Your task to perform on an android device: change notification settings in the gmail app Image 0: 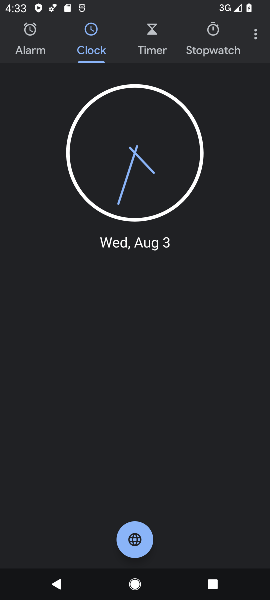
Step 0: press home button
Your task to perform on an android device: change notification settings in the gmail app Image 1: 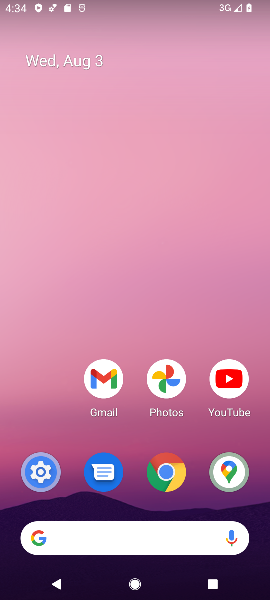
Step 1: drag from (40, 418) to (74, 60)
Your task to perform on an android device: change notification settings in the gmail app Image 2: 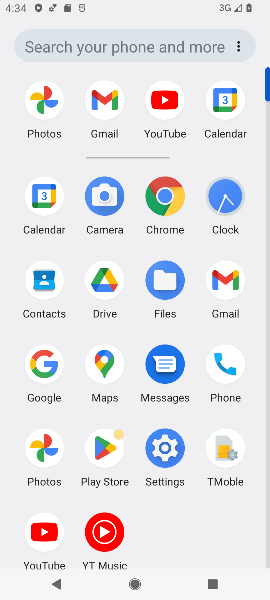
Step 2: click (107, 106)
Your task to perform on an android device: change notification settings in the gmail app Image 3: 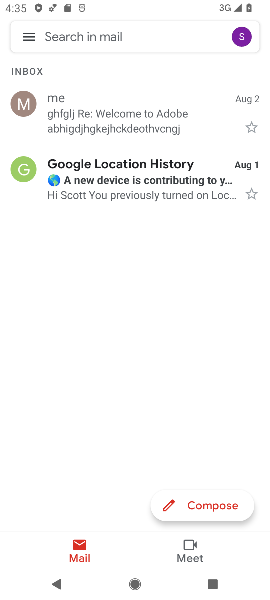
Step 3: click (23, 36)
Your task to perform on an android device: change notification settings in the gmail app Image 4: 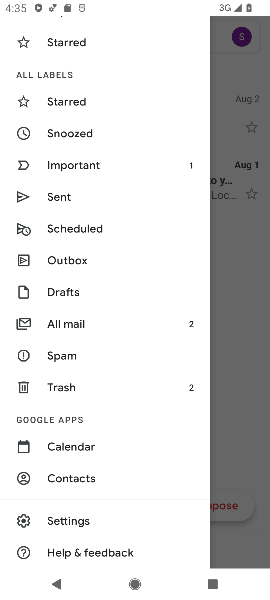
Step 4: click (88, 522)
Your task to perform on an android device: change notification settings in the gmail app Image 5: 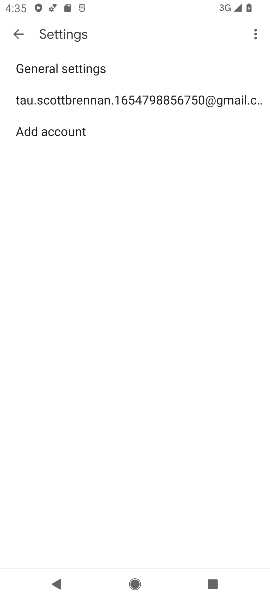
Step 5: click (192, 110)
Your task to perform on an android device: change notification settings in the gmail app Image 6: 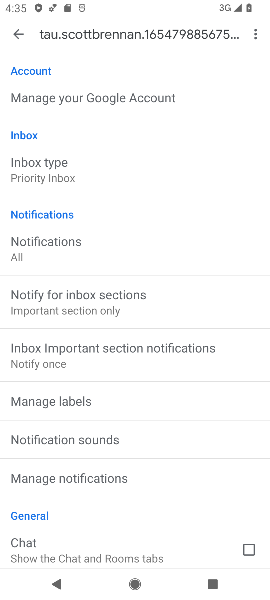
Step 6: click (55, 474)
Your task to perform on an android device: change notification settings in the gmail app Image 7: 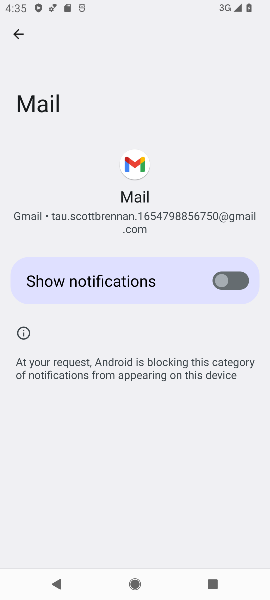
Step 7: click (216, 289)
Your task to perform on an android device: change notification settings in the gmail app Image 8: 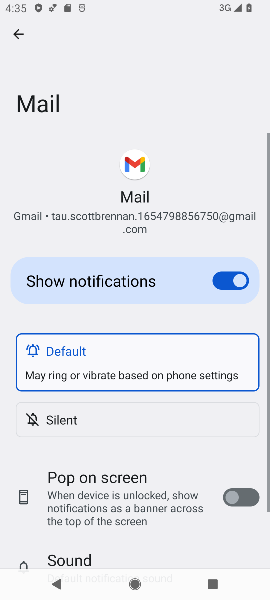
Step 8: task complete